Your task to perform on an android device: Open notification settings Image 0: 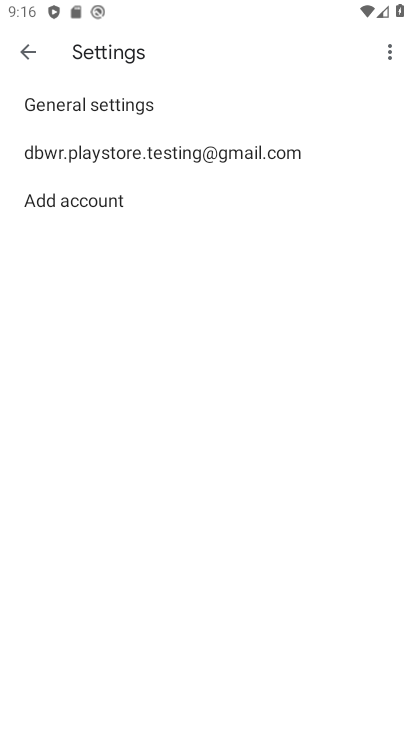
Step 0: drag from (231, 660) to (199, 432)
Your task to perform on an android device: Open notification settings Image 1: 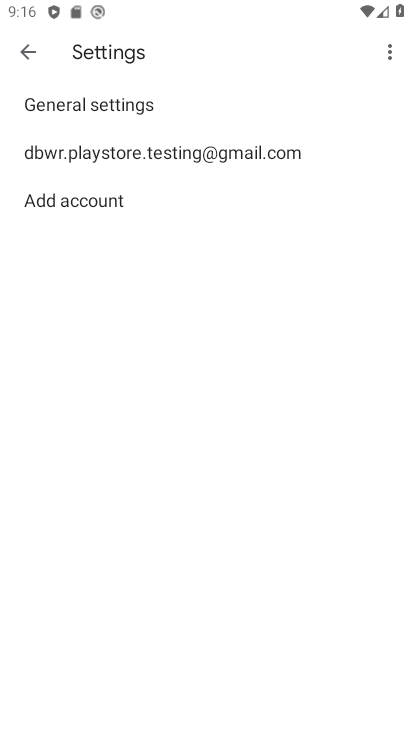
Step 1: press home button
Your task to perform on an android device: Open notification settings Image 2: 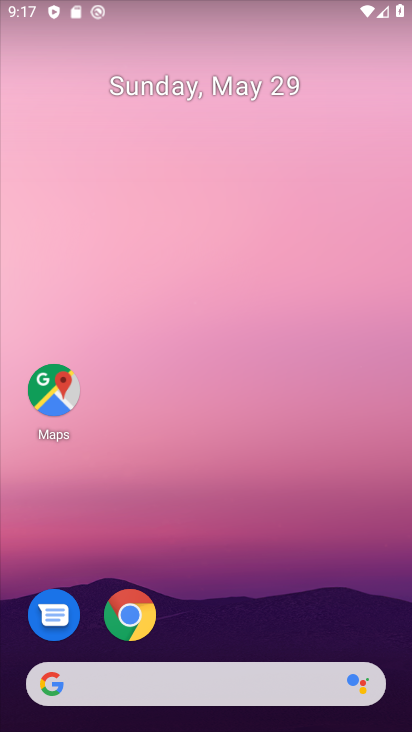
Step 2: drag from (229, 665) to (175, 5)
Your task to perform on an android device: Open notification settings Image 3: 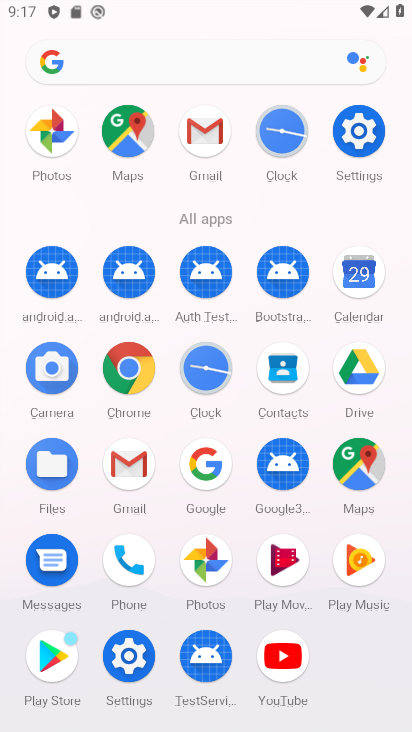
Step 3: click (349, 132)
Your task to perform on an android device: Open notification settings Image 4: 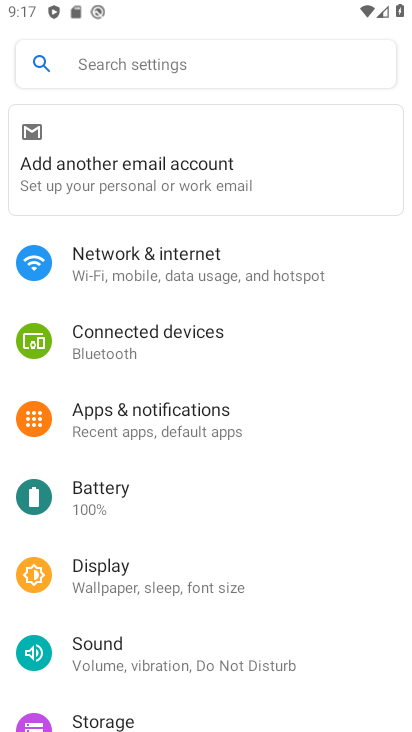
Step 4: click (175, 408)
Your task to perform on an android device: Open notification settings Image 5: 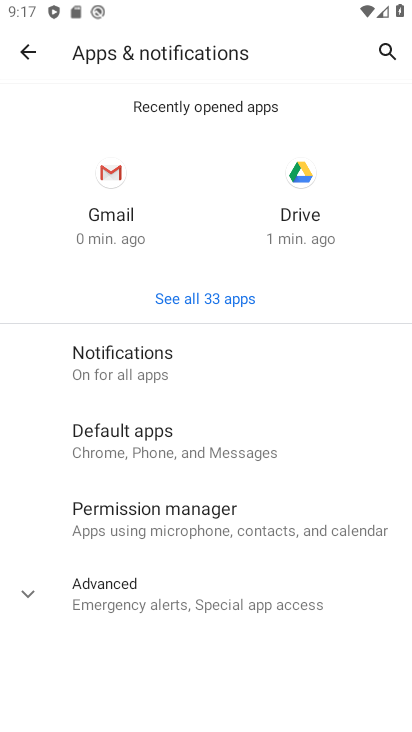
Step 5: click (127, 377)
Your task to perform on an android device: Open notification settings Image 6: 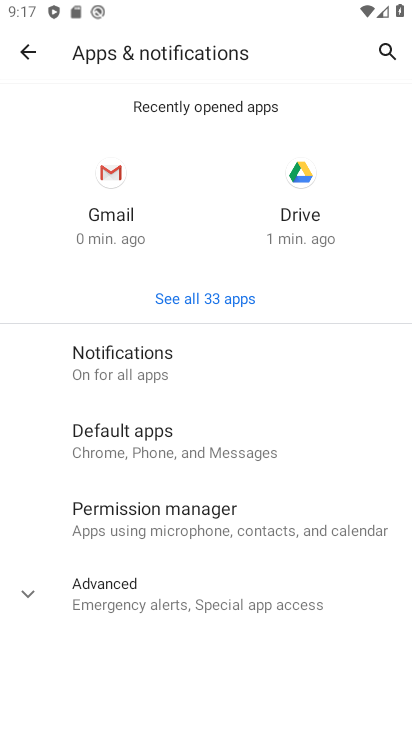
Step 6: task complete